Your task to perform on an android device: empty trash in google photos Image 0: 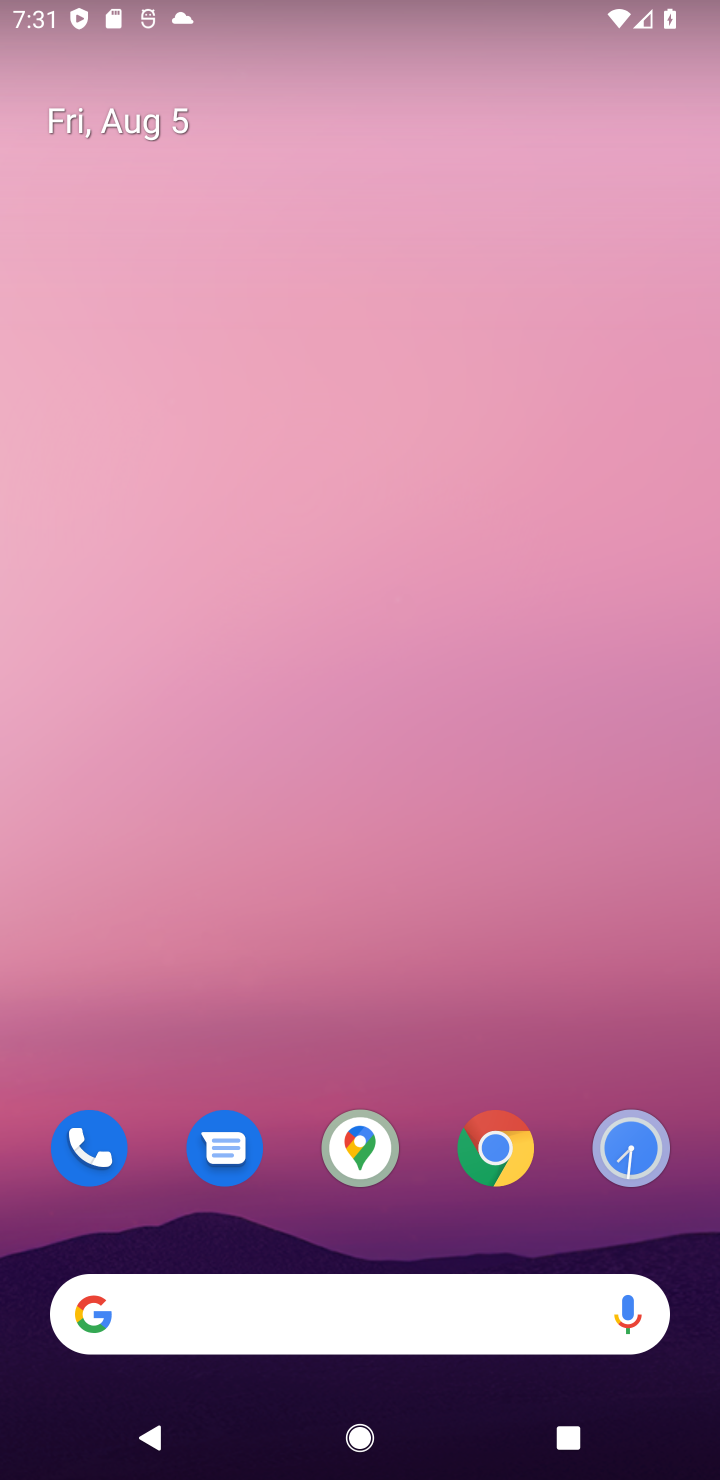
Step 0: drag from (442, 1270) to (450, 412)
Your task to perform on an android device: empty trash in google photos Image 1: 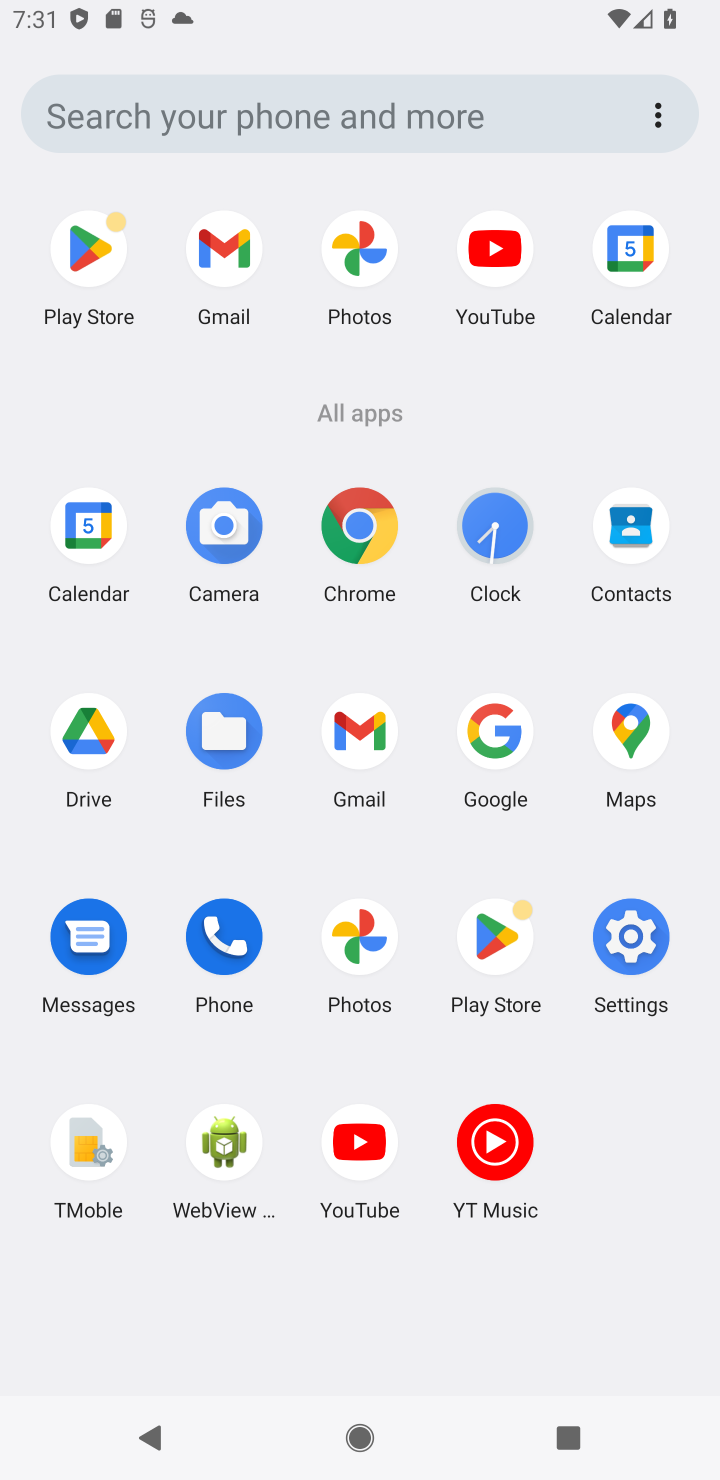
Step 1: click (329, 298)
Your task to perform on an android device: empty trash in google photos Image 2: 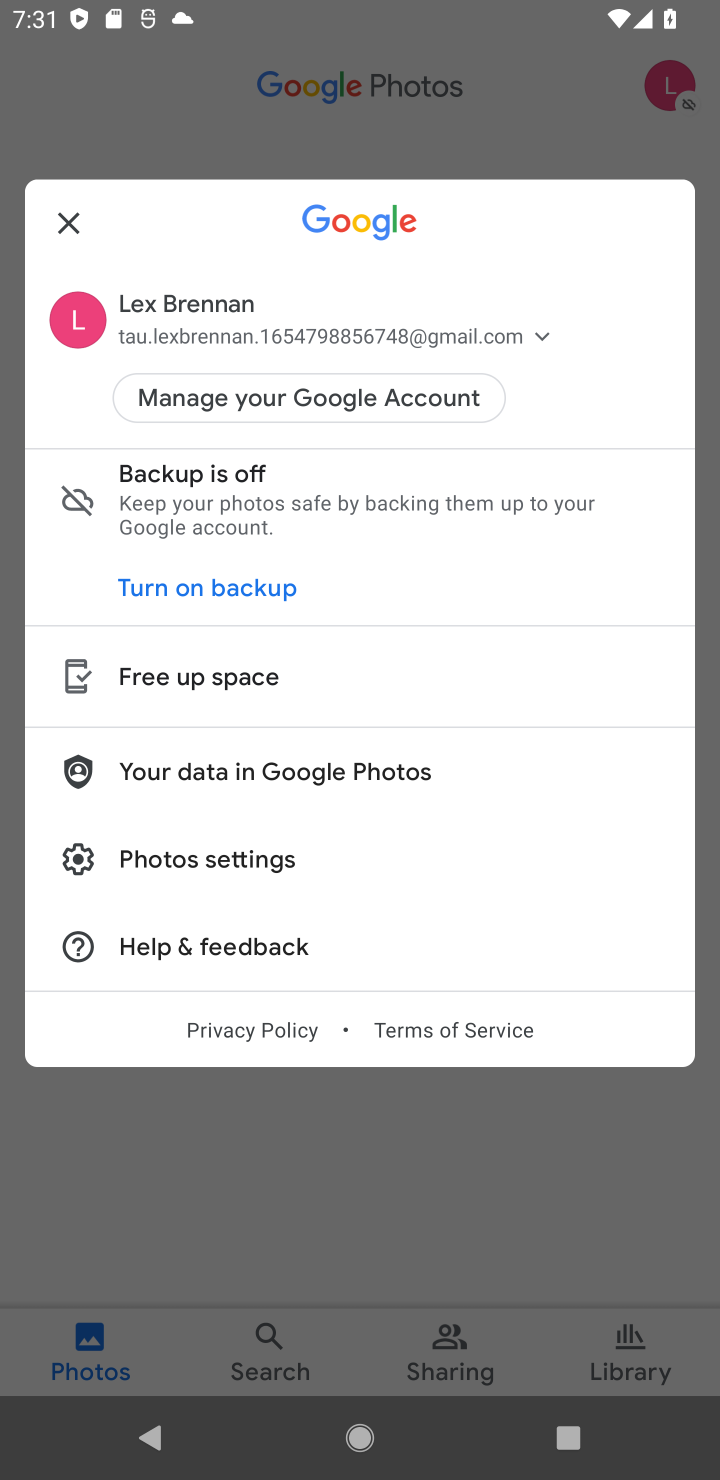
Step 2: click (385, 1176)
Your task to perform on an android device: empty trash in google photos Image 3: 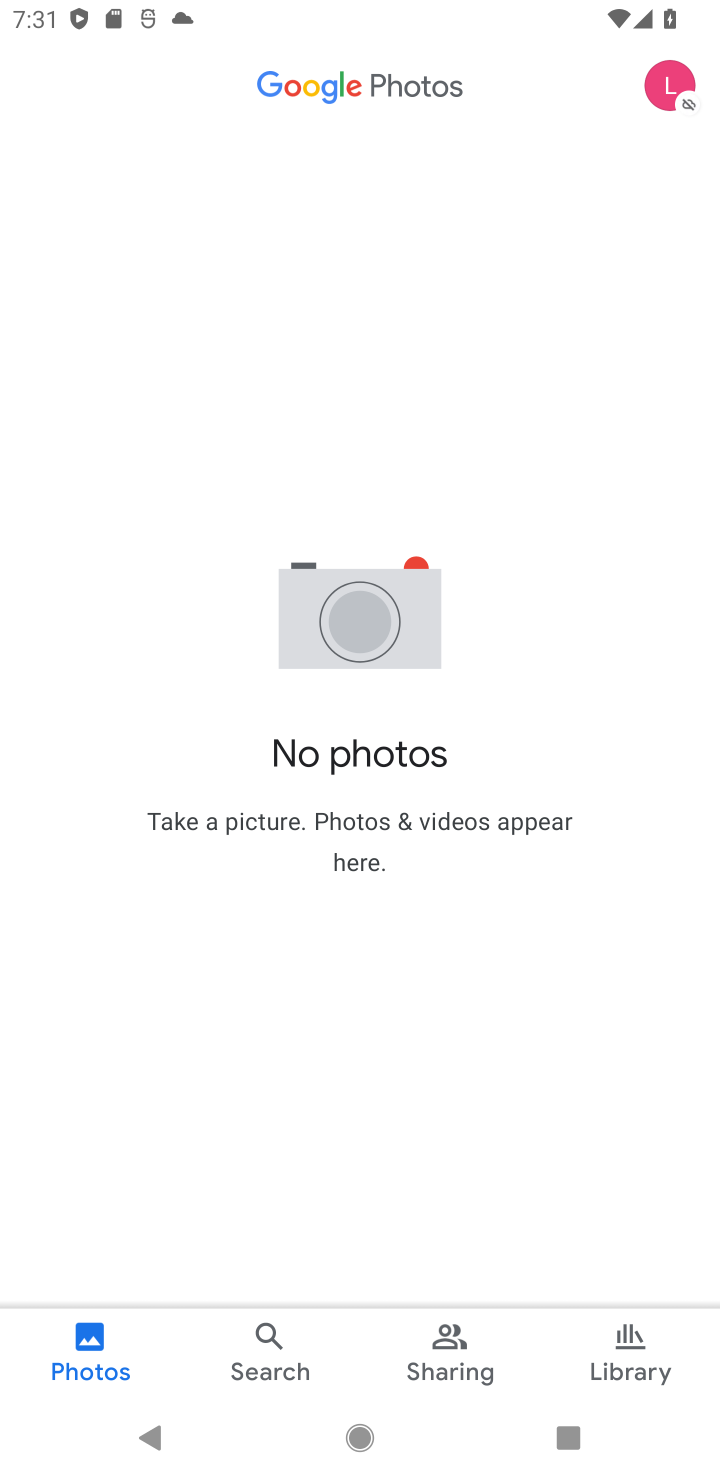
Step 3: click (619, 1332)
Your task to perform on an android device: empty trash in google photos Image 4: 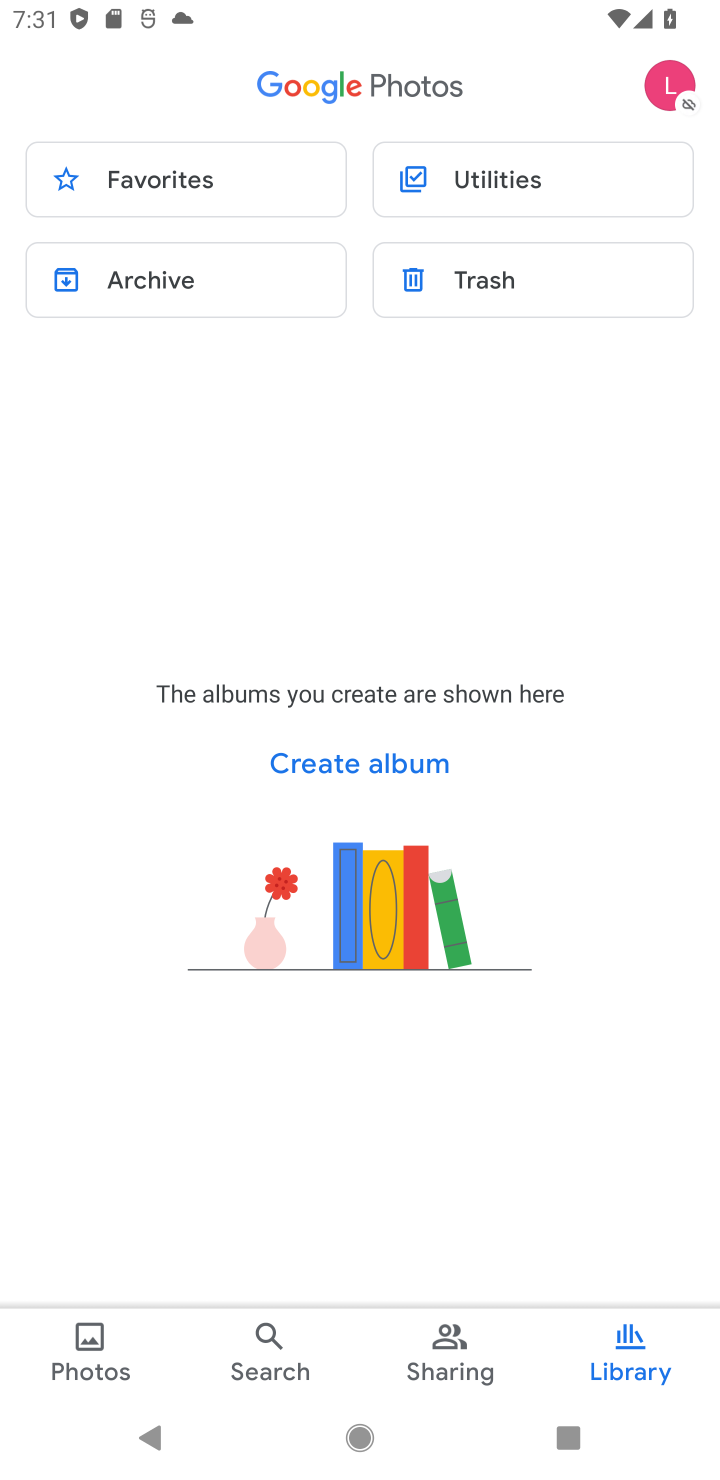
Step 4: click (536, 267)
Your task to perform on an android device: empty trash in google photos Image 5: 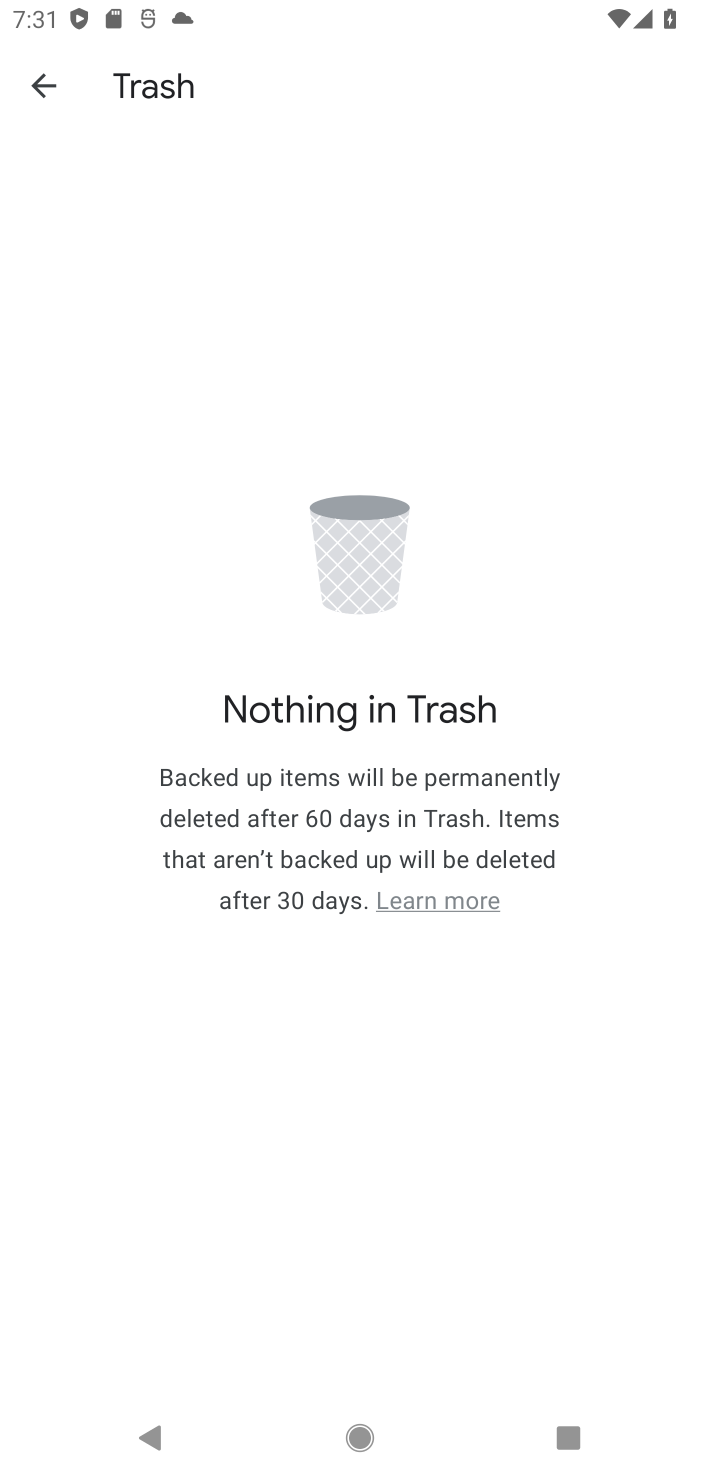
Step 5: task complete